Your task to perform on an android device: add a label to a message in the gmail app Image 0: 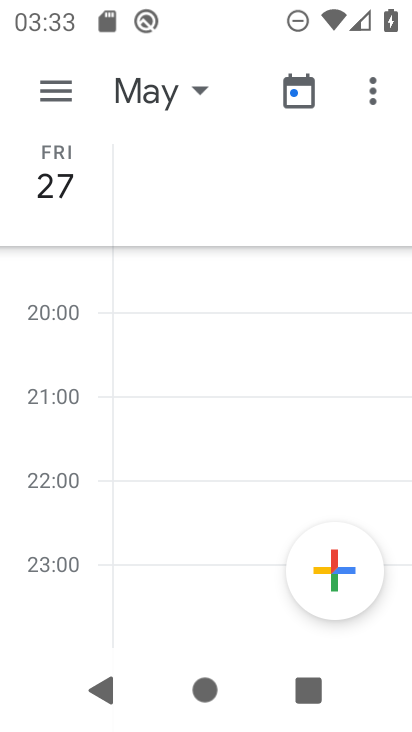
Step 0: press home button
Your task to perform on an android device: add a label to a message in the gmail app Image 1: 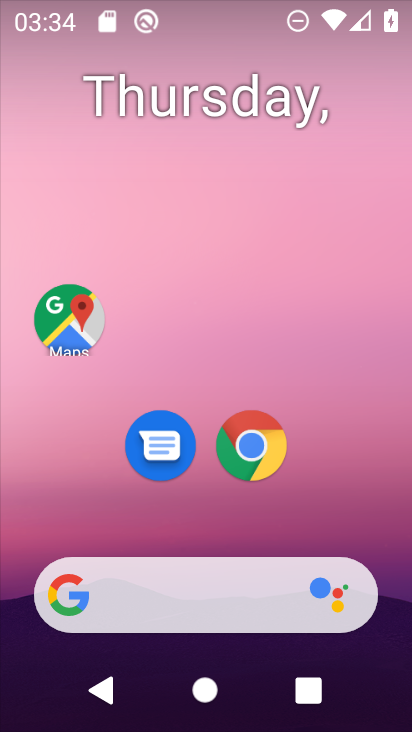
Step 1: drag from (311, 514) to (351, 6)
Your task to perform on an android device: add a label to a message in the gmail app Image 2: 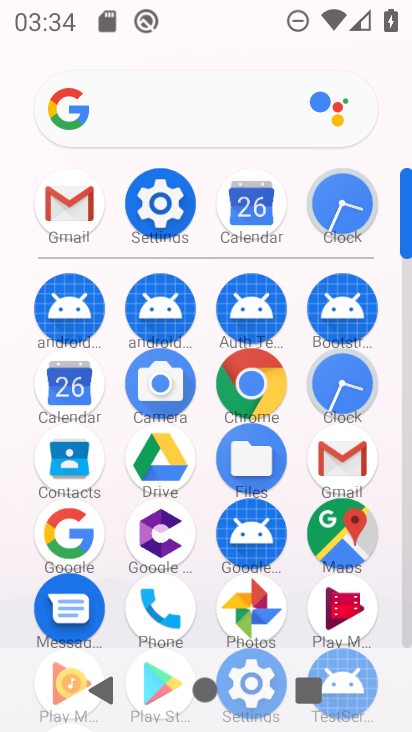
Step 2: click (66, 193)
Your task to perform on an android device: add a label to a message in the gmail app Image 3: 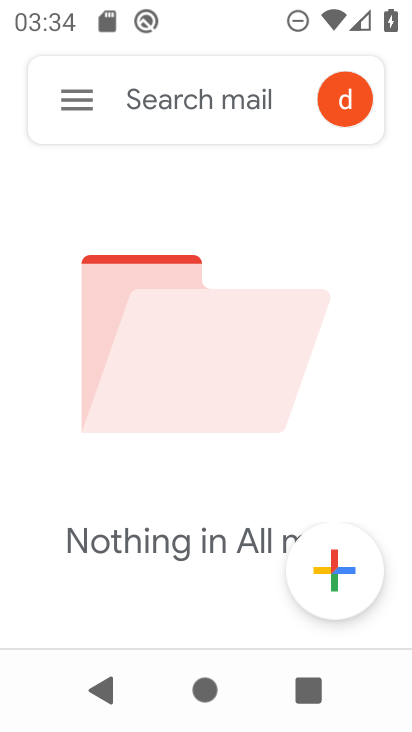
Step 3: task complete